Your task to perform on an android device: Open sound settings Image 0: 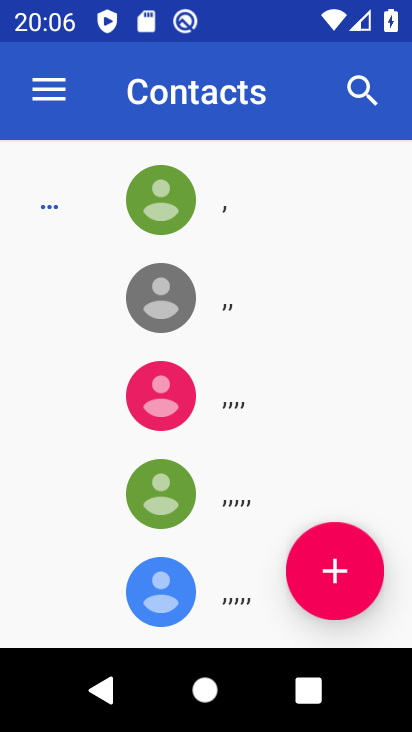
Step 0: press home button
Your task to perform on an android device: Open sound settings Image 1: 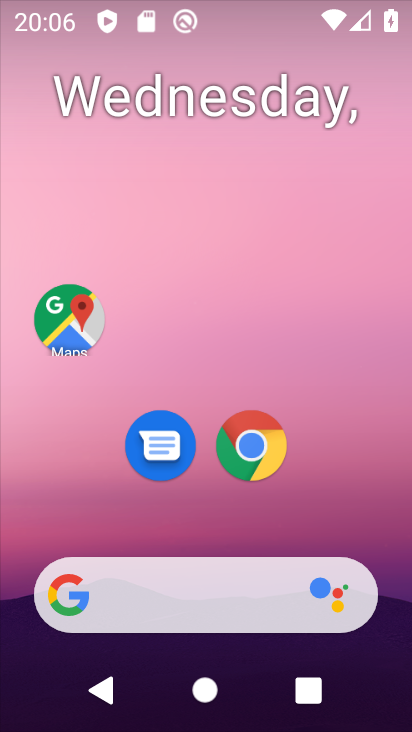
Step 1: drag from (306, 514) to (332, 219)
Your task to perform on an android device: Open sound settings Image 2: 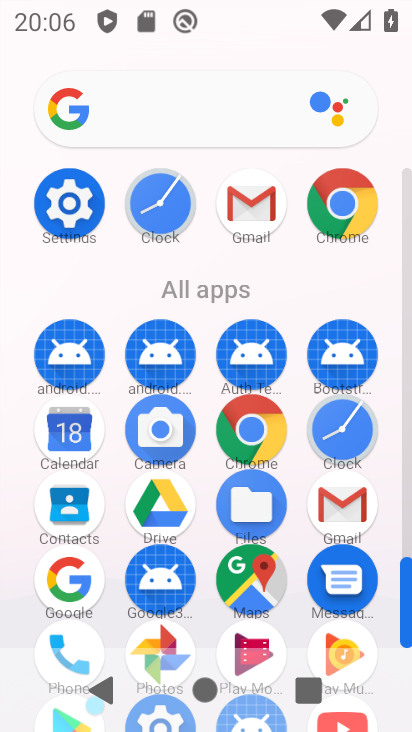
Step 2: click (60, 219)
Your task to perform on an android device: Open sound settings Image 3: 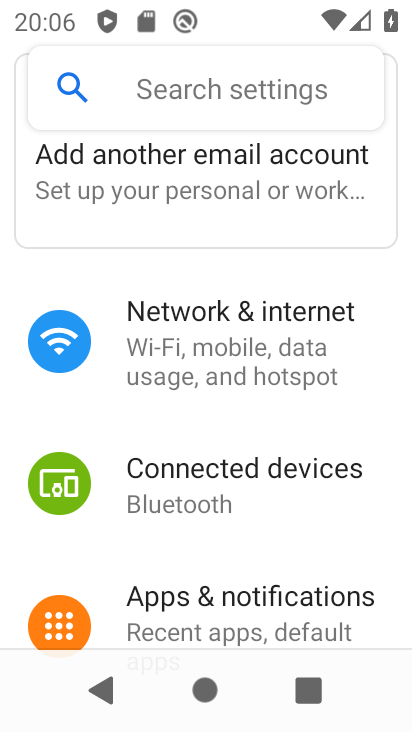
Step 3: drag from (181, 542) to (208, 85)
Your task to perform on an android device: Open sound settings Image 4: 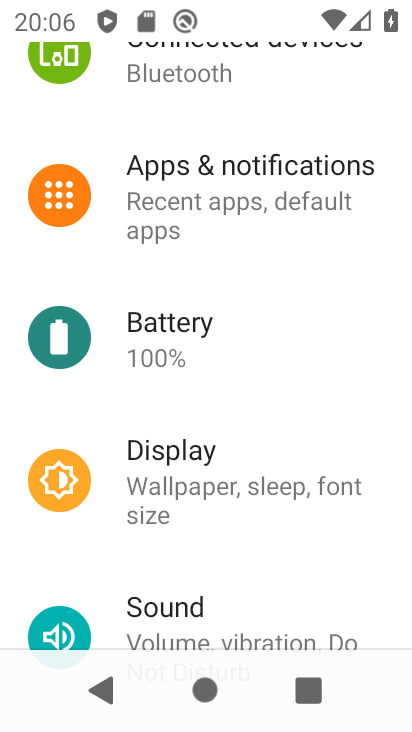
Step 4: drag from (157, 525) to (197, 255)
Your task to perform on an android device: Open sound settings Image 5: 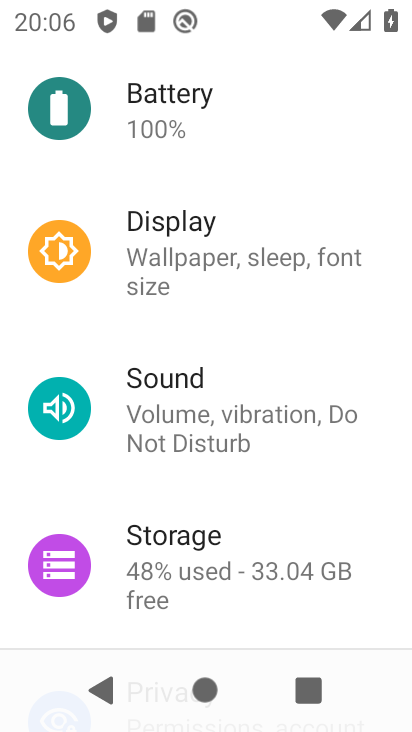
Step 5: click (161, 426)
Your task to perform on an android device: Open sound settings Image 6: 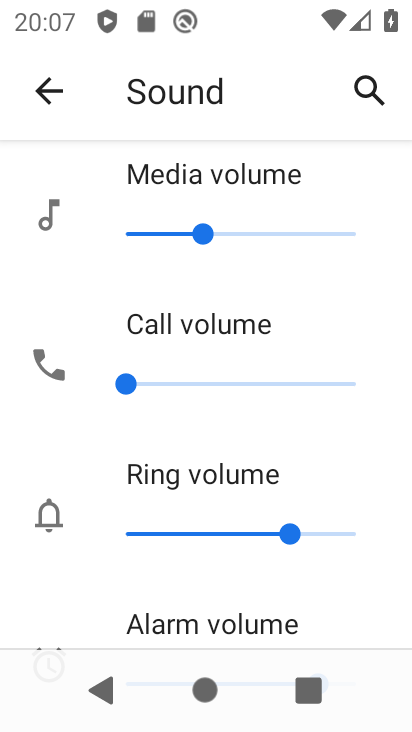
Step 6: task complete